Your task to perform on an android device: Open the phone app and click the voicemail tab. Image 0: 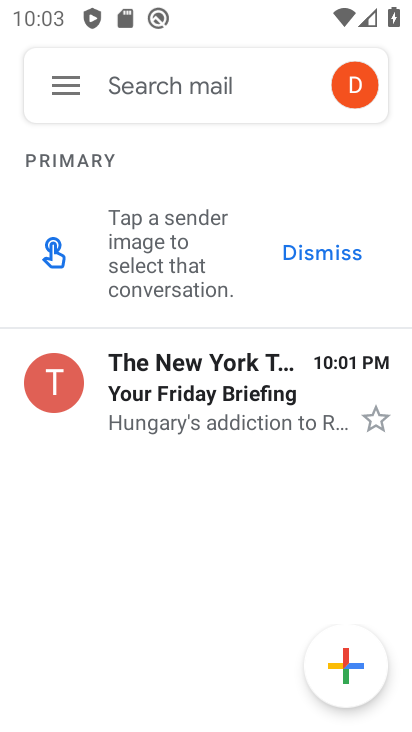
Step 0: press home button
Your task to perform on an android device: Open the phone app and click the voicemail tab. Image 1: 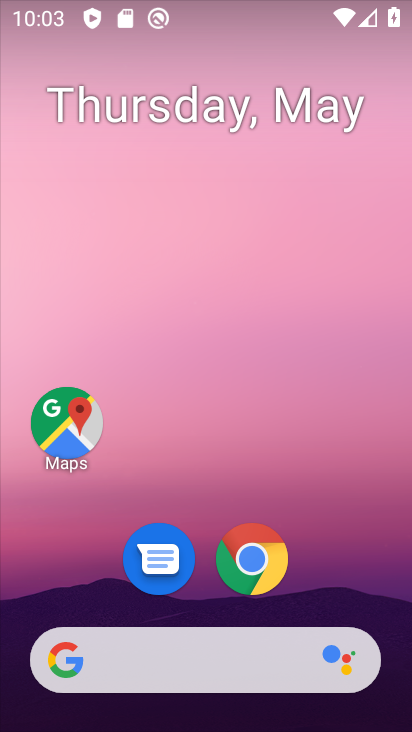
Step 1: drag from (325, 532) to (409, 119)
Your task to perform on an android device: Open the phone app and click the voicemail tab. Image 2: 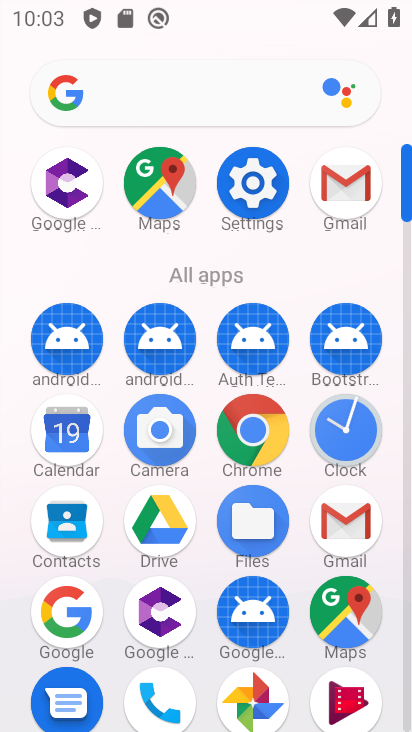
Step 2: click (175, 691)
Your task to perform on an android device: Open the phone app and click the voicemail tab. Image 3: 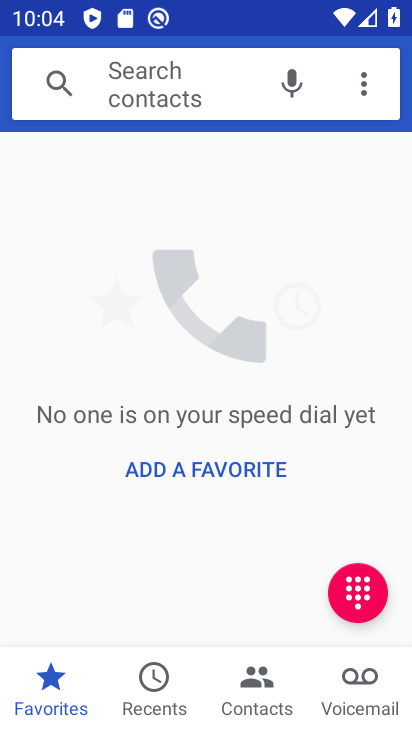
Step 3: click (385, 702)
Your task to perform on an android device: Open the phone app and click the voicemail tab. Image 4: 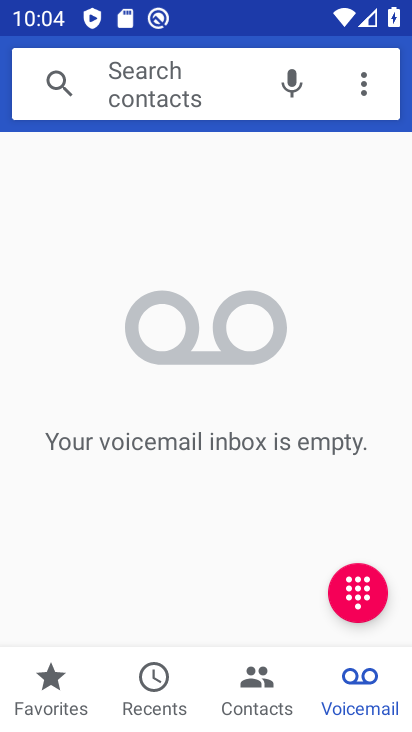
Step 4: task complete